Your task to perform on an android device: Go to location settings Image 0: 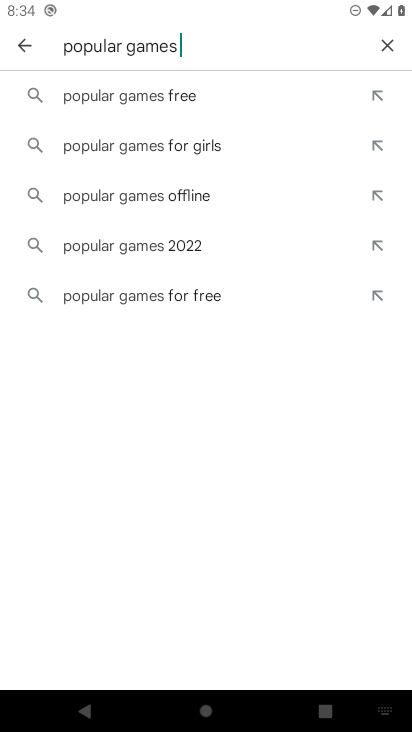
Step 0: press home button
Your task to perform on an android device: Go to location settings Image 1: 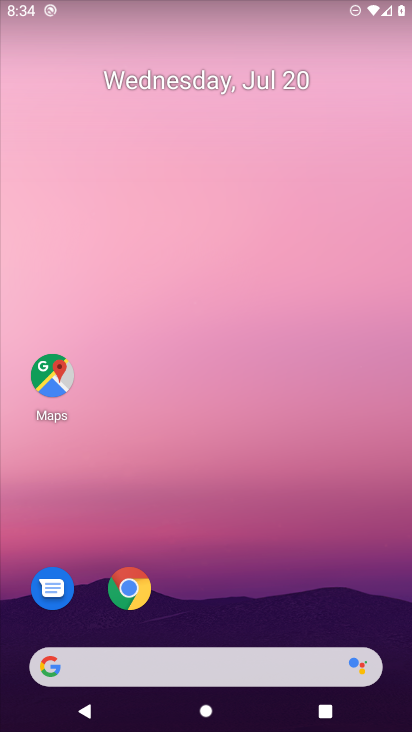
Step 1: drag from (53, 608) to (166, 136)
Your task to perform on an android device: Go to location settings Image 2: 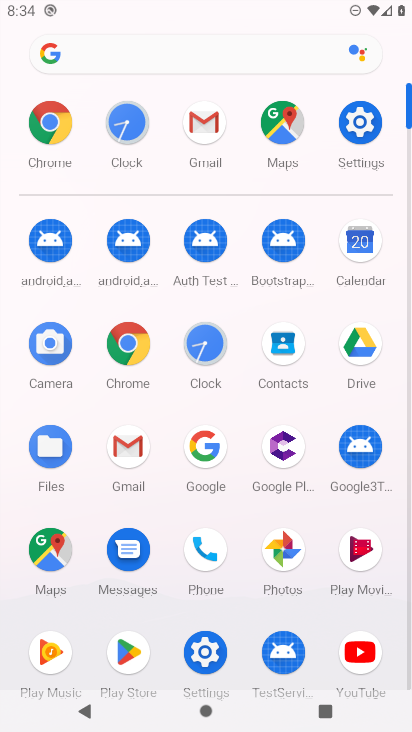
Step 2: click (209, 655)
Your task to perform on an android device: Go to location settings Image 3: 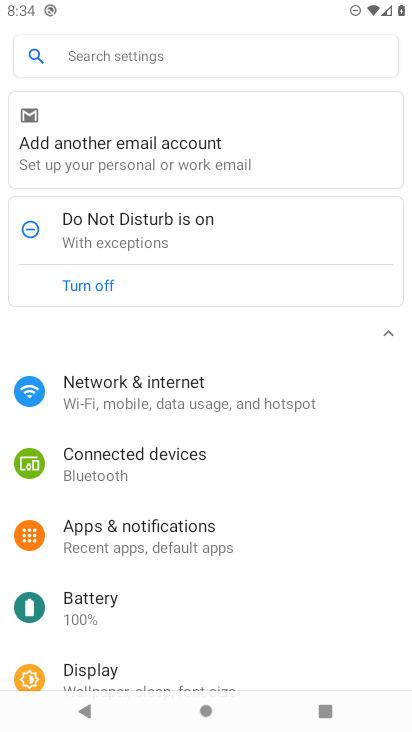
Step 3: drag from (264, 472) to (275, 309)
Your task to perform on an android device: Go to location settings Image 4: 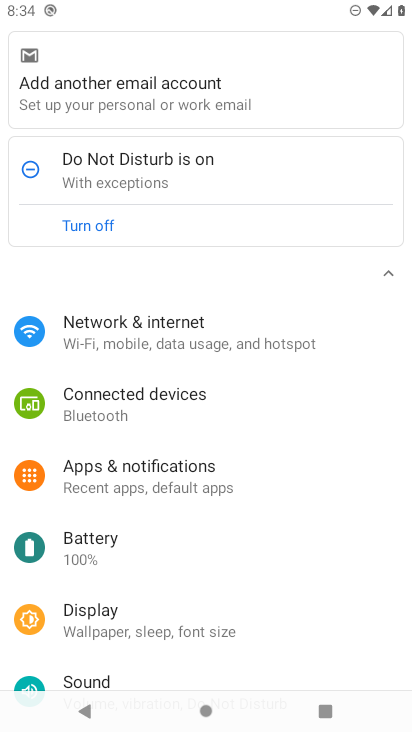
Step 4: drag from (248, 620) to (284, 348)
Your task to perform on an android device: Go to location settings Image 5: 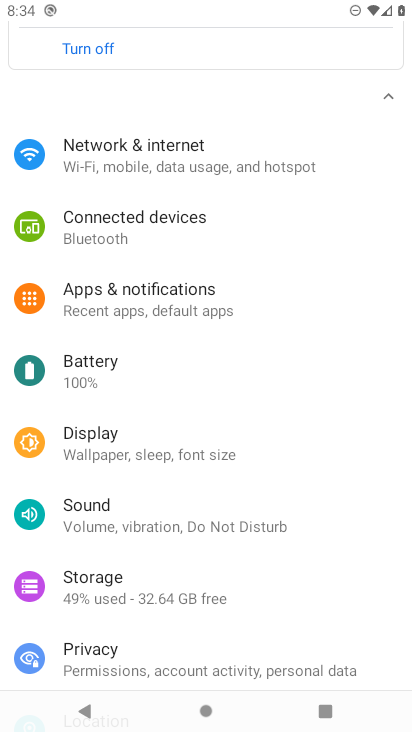
Step 5: drag from (242, 555) to (250, 243)
Your task to perform on an android device: Go to location settings Image 6: 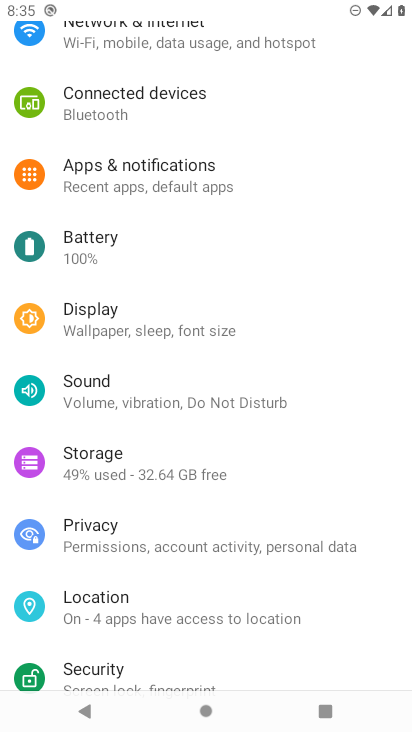
Step 6: click (119, 613)
Your task to perform on an android device: Go to location settings Image 7: 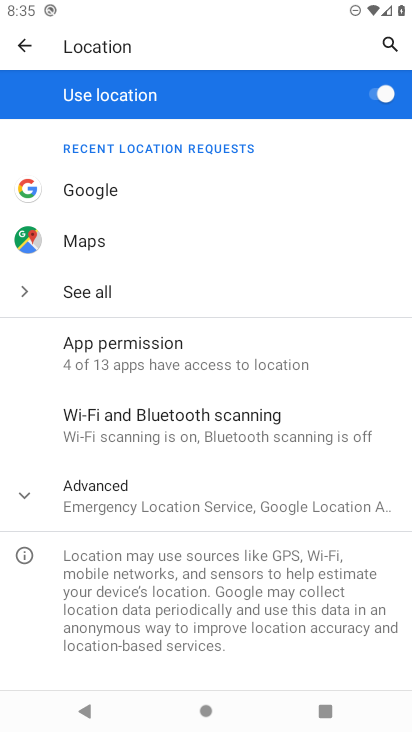
Step 7: task complete